Your task to perform on an android device: turn off priority inbox in the gmail app Image 0: 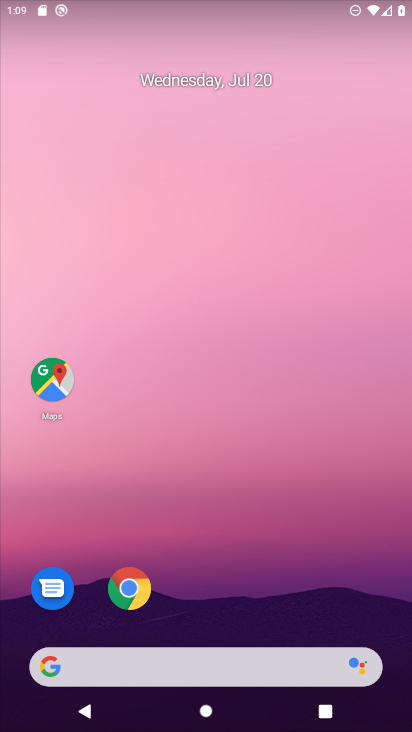
Step 0: drag from (310, 607) to (220, 138)
Your task to perform on an android device: turn off priority inbox in the gmail app Image 1: 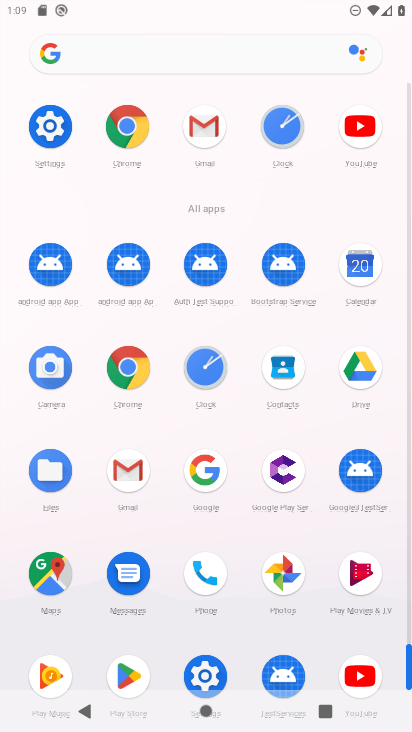
Step 1: click (202, 131)
Your task to perform on an android device: turn off priority inbox in the gmail app Image 2: 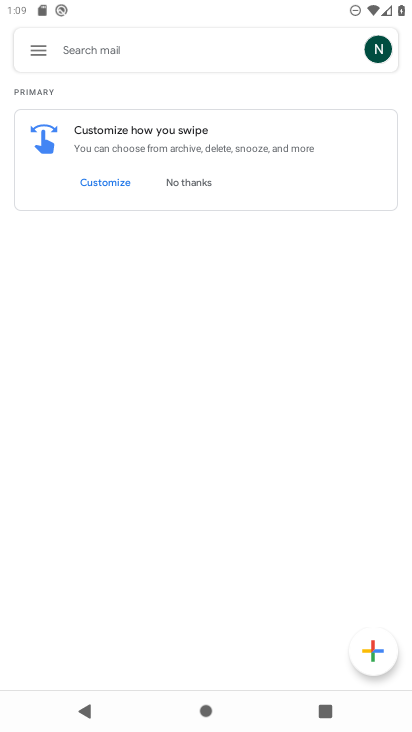
Step 2: click (34, 46)
Your task to perform on an android device: turn off priority inbox in the gmail app Image 3: 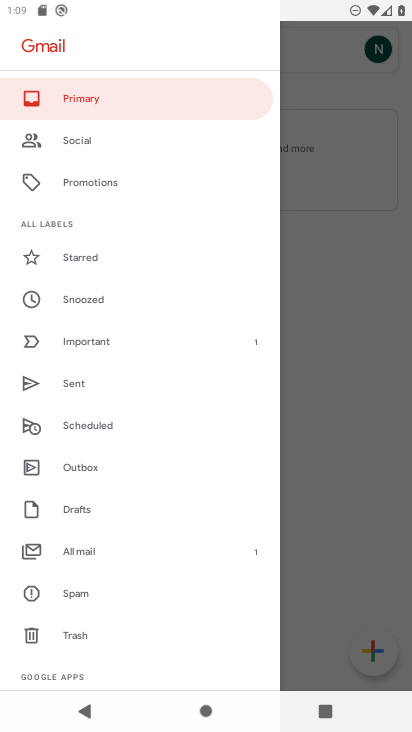
Step 3: drag from (118, 627) to (120, 392)
Your task to perform on an android device: turn off priority inbox in the gmail app Image 4: 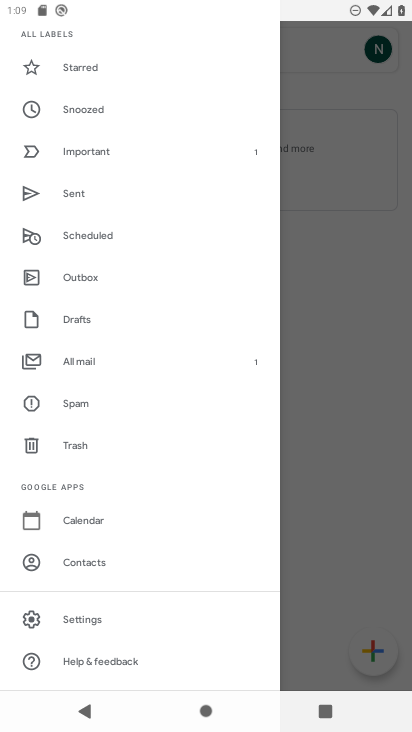
Step 4: click (86, 628)
Your task to perform on an android device: turn off priority inbox in the gmail app Image 5: 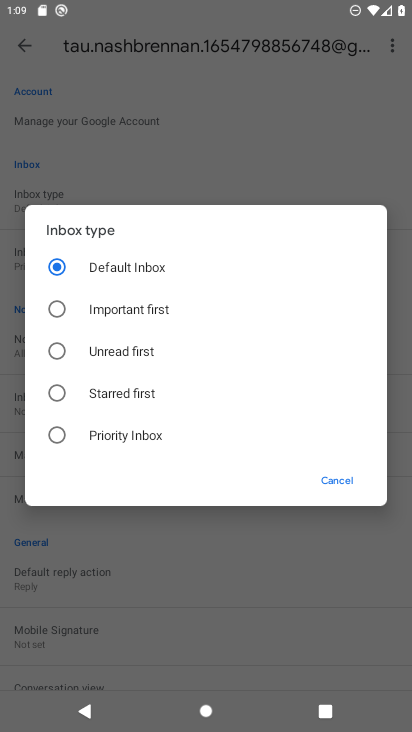
Step 5: task complete